Your task to perform on an android device: change the clock style Image 0: 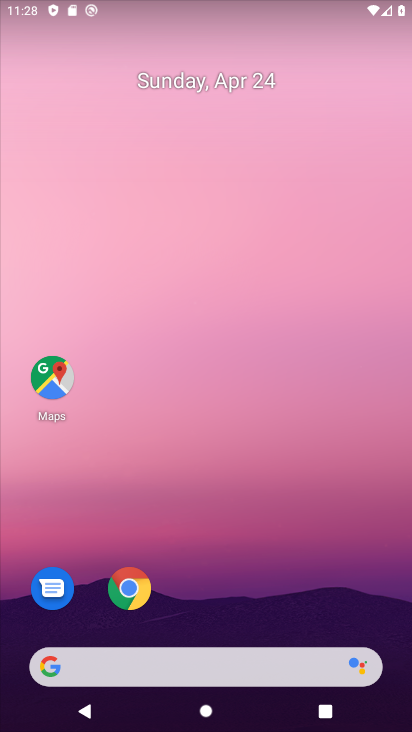
Step 0: drag from (235, 601) to (237, 165)
Your task to perform on an android device: change the clock style Image 1: 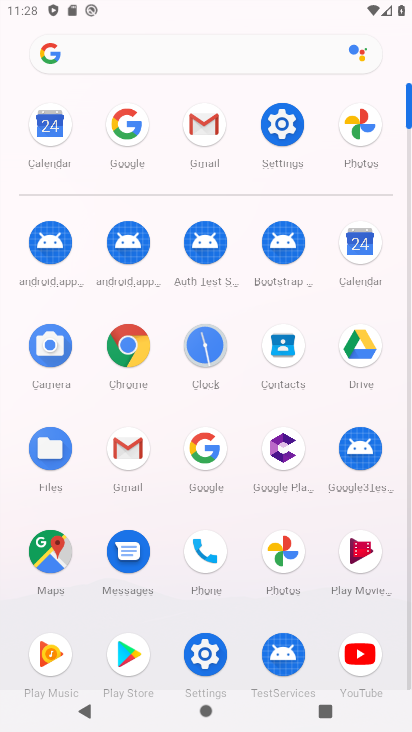
Step 1: click (211, 347)
Your task to perform on an android device: change the clock style Image 2: 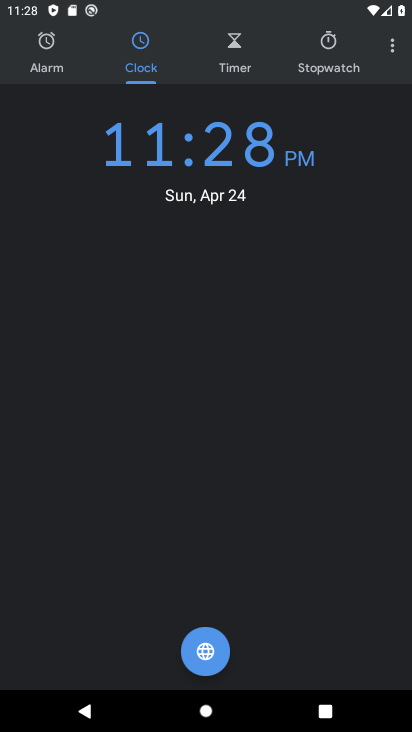
Step 2: click (393, 48)
Your task to perform on an android device: change the clock style Image 3: 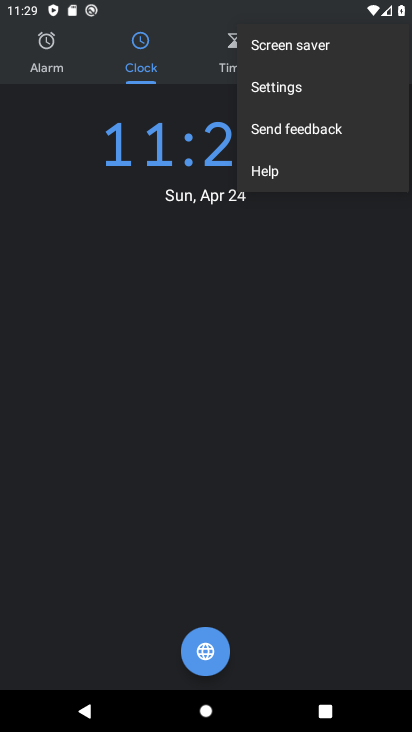
Step 3: click (304, 96)
Your task to perform on an android device: change the clock style Image 4: 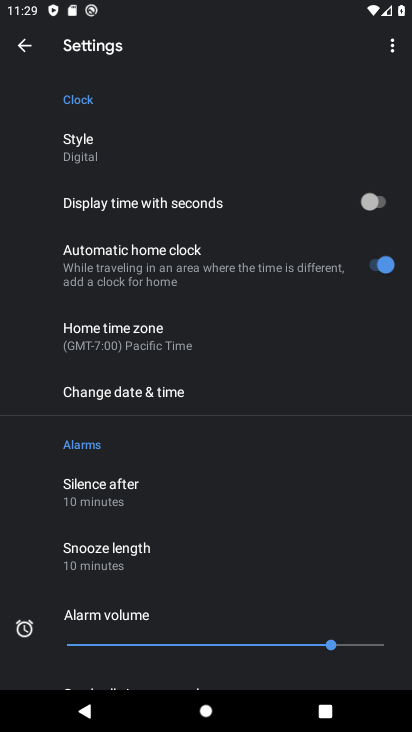
Step 4: click (102, 165)
Your task to perform on an android device: change the clock style Image 5: 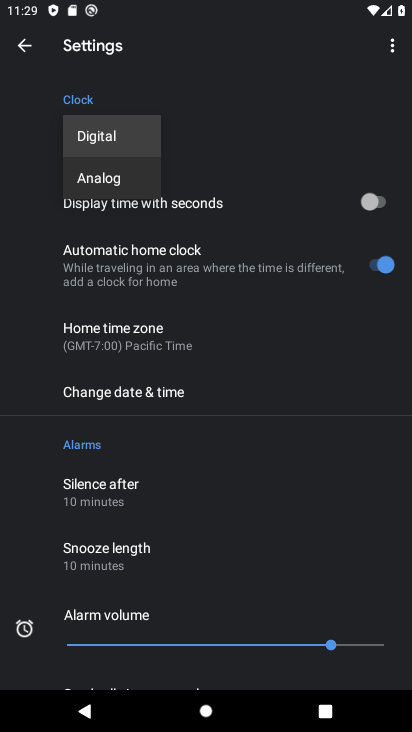
Step 5: click (111, 179)
Your task to perform on an android device: change the clock style Image 6: 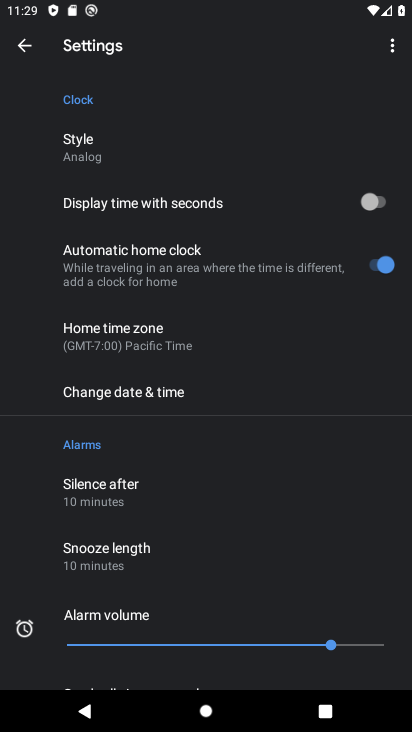
Step 6: task complete